Your task to perform on an android device: Go to internet settings Image 0: 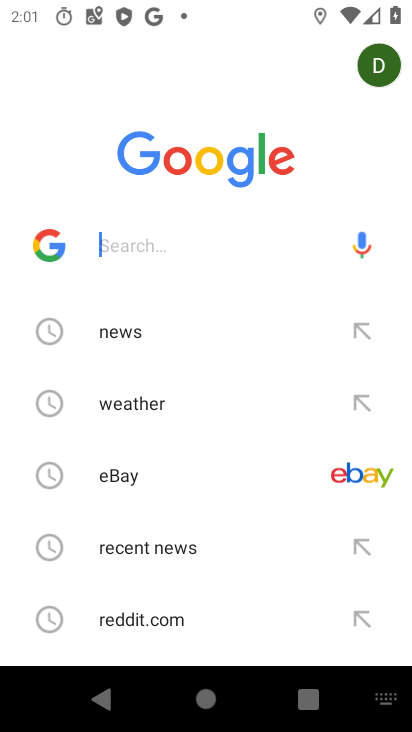
Step 0: press home button
Your task to perform on an android device: Go to internet settings Image 1: 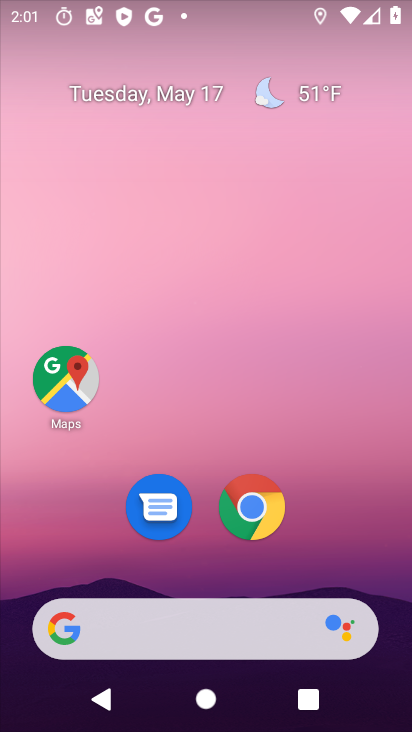
Step 1: drag from (200, 559) to (199, 364)
Your task to perform on an android device: Go to internet settings Image 2: 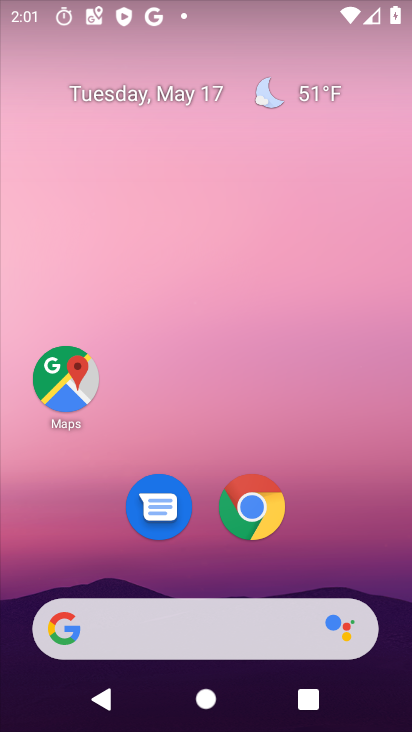
Step 2: drag from (190, 261) to (183, 148)
Your task to perform on an android device: Go to internet settings Image 3: 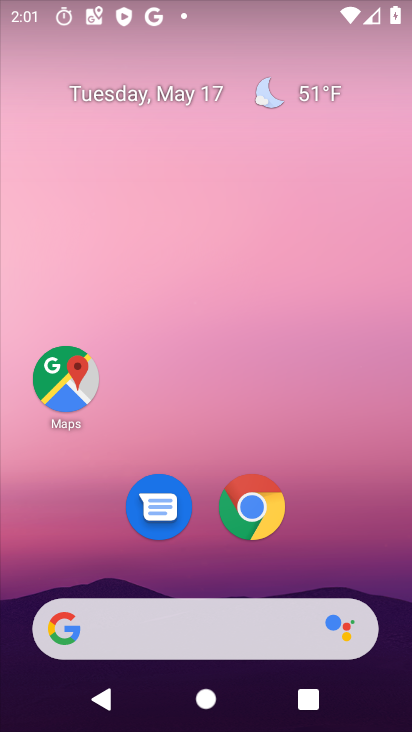
Step 3: drag from (193, 574) to (201, 85)
Your task to perform on an android device: Go to internet settings Image 4: 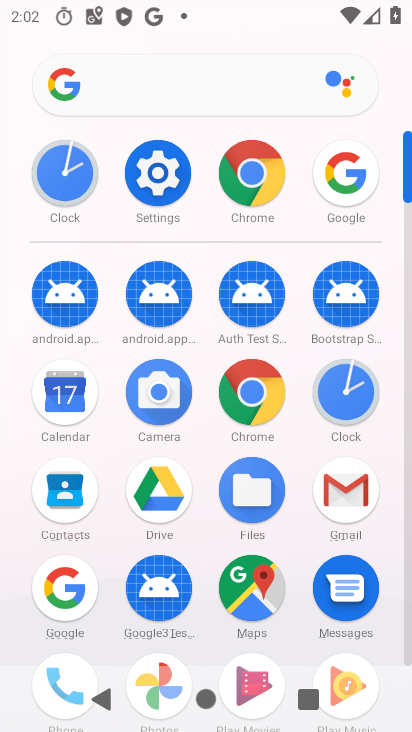
Step 4: click (157, 173)
Your task to perform on an android device: Go to internet settings Image 5: 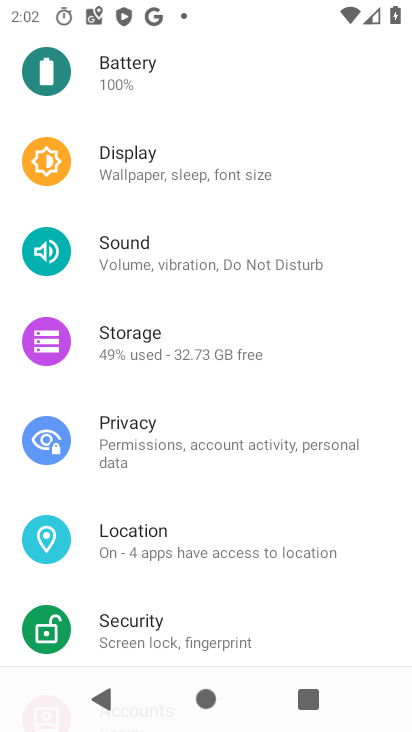
Step 5: drag from (194, 158) to (266, 531)
Your task to perform on an android device: Go to internet settings Image 6: 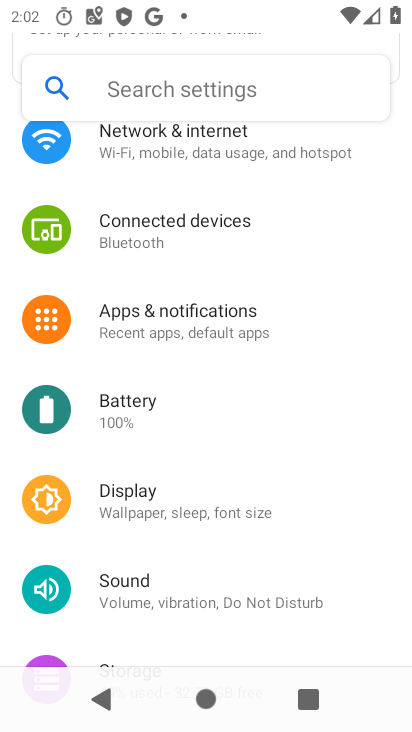
Step 6: drag from (162, 150) to (192, 436)
Your task to perform on an android device: Go to internet settings Image 7: 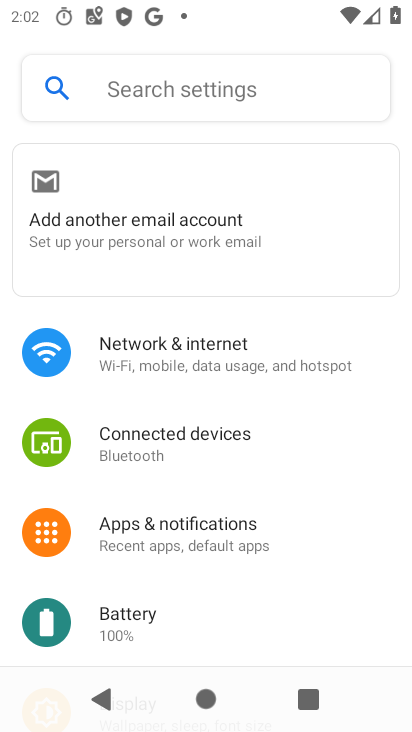
Step 7: click (153, 339)
Your task to perform on an android device: Go to internet settings Image 8: 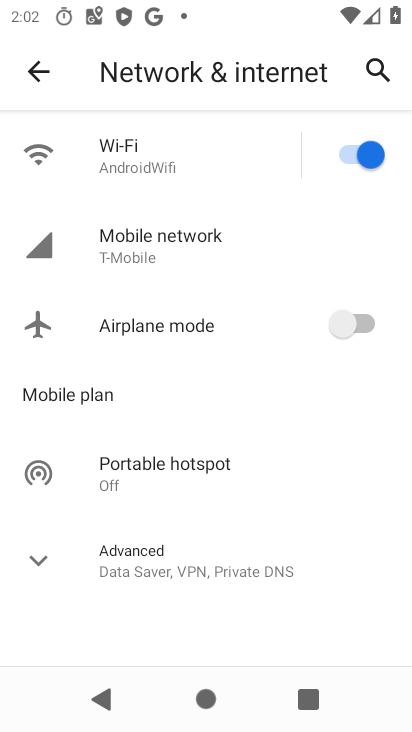
Step 8: click (144, 151)
Your task to perform on an android device: Go to internet settings Image 9: 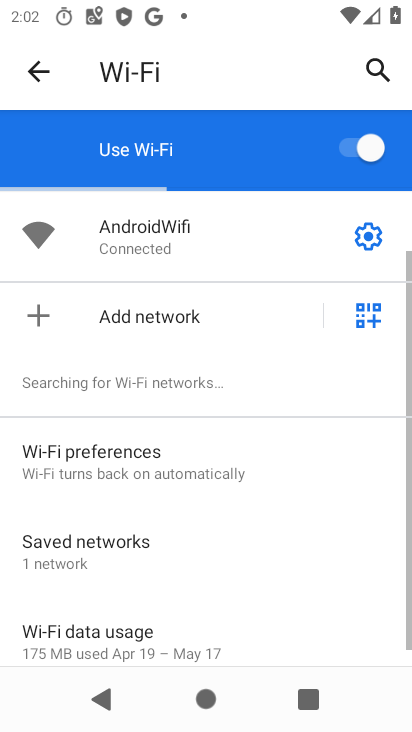
Step 9: click (354, 236)
Your task to perform on an android device: Go to internet settings Image 10: 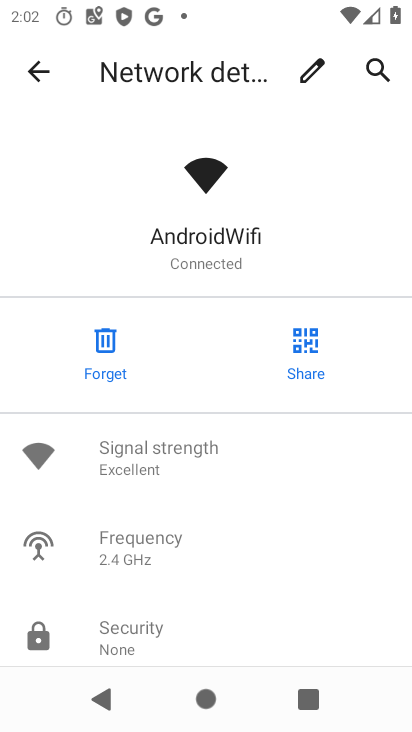
Step 10: task complete